Your task to perform on an android device: remove spam from my inbox in the gmail app Image 0: 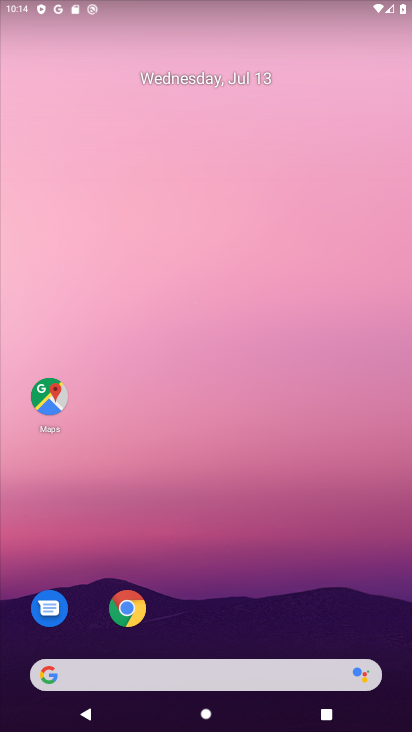
Step 0: drag from (295, 607) to (293, 422)
Your task to perform on an android device: remove spam from my inbox in the gmail app Image 1: 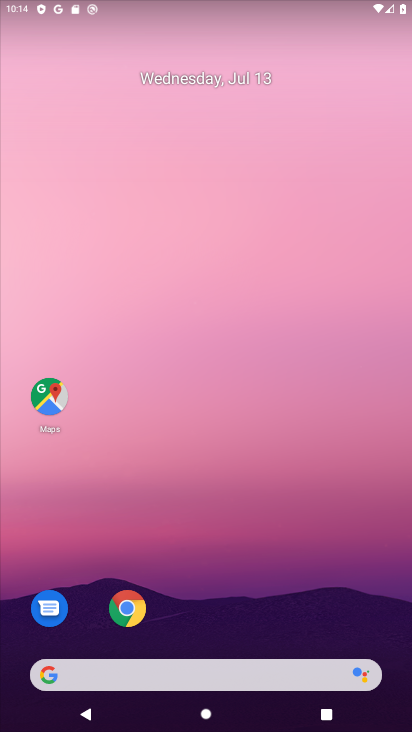
Step 1: drag from (284, 566) to (292, 170)
Your task to perform on an android device: remove spam from my inbox in the gmail app Image 2: 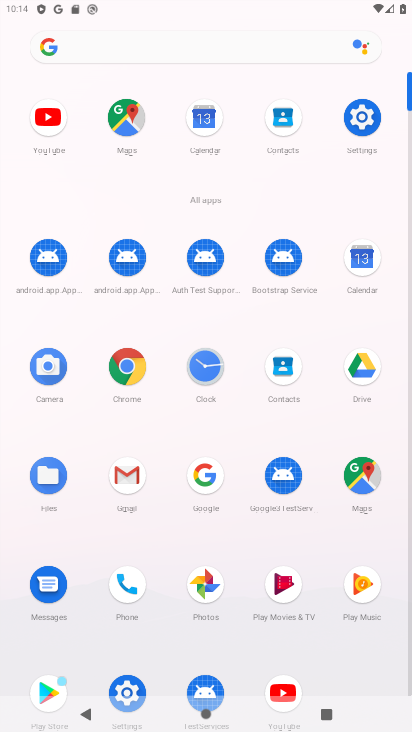
Step 2: click (136, 481)
Your task to perform on an android device: remove spam from my inbox in the gmail app Image 3: 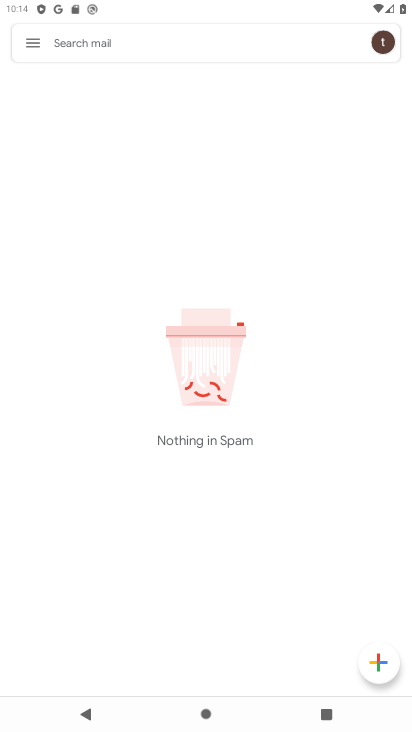
Step 3: task complete